Your task to perform on an android device: remove spam from my inbox in the gmail app Image 0: 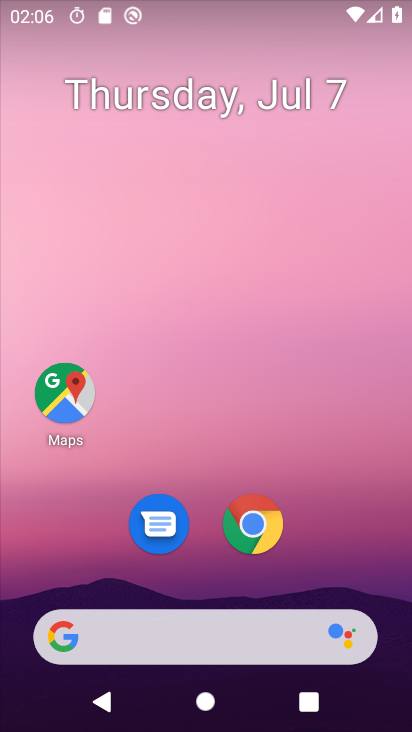
Step 0: drag from (215, 452) to (211, 92)
Your task to perform on an android device: remove spam from my inbox in the gmail app Image 1: 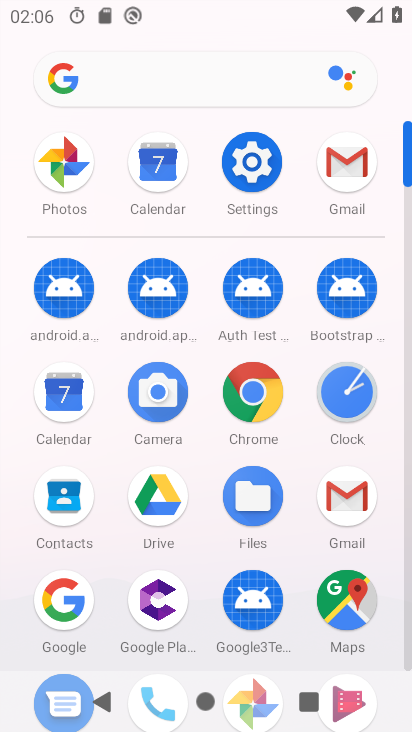
Step 1: click (343, 182)
Your task to perform on an android device: remove spam from my inbox in the gmail app Image 2: 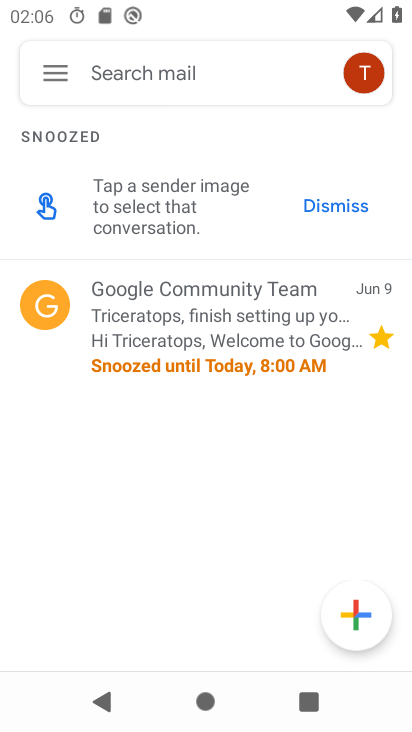
Step 2: click (51, 70)
Your task to perform on an android device: remove spam from my inbox in the gmail app Image 3: 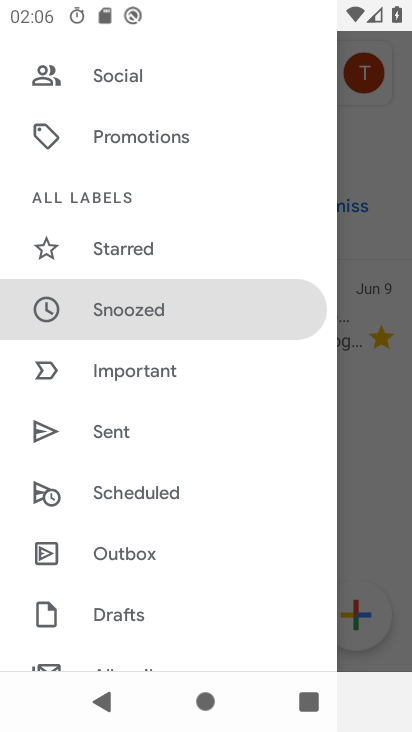
Step 3: drag from (148, 541) to (210, 182)
Your task to perform on an android device: remove spam from my inbox in the gmail app Image 4: 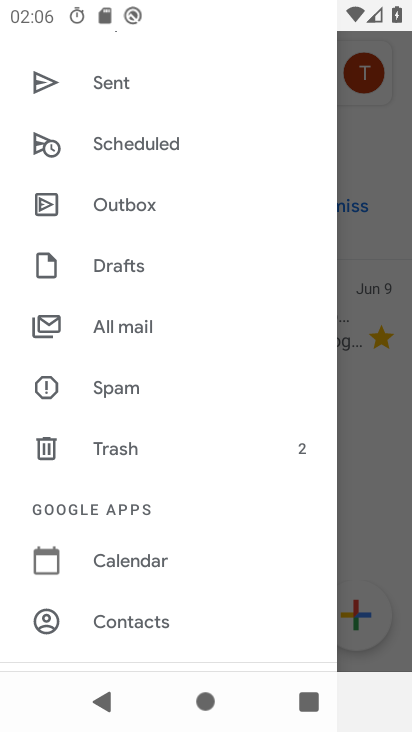
Step 4: click (126, 380)
Your task to perform on an android device: remove spam from my inbox in the gmail app Image 5: 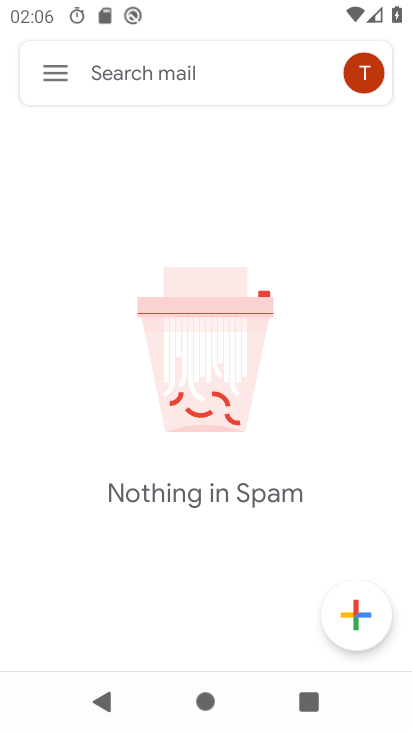
Step 5: task complete